Your task to perform on an android device: Search for pizza restaurants on Maps Image 0: 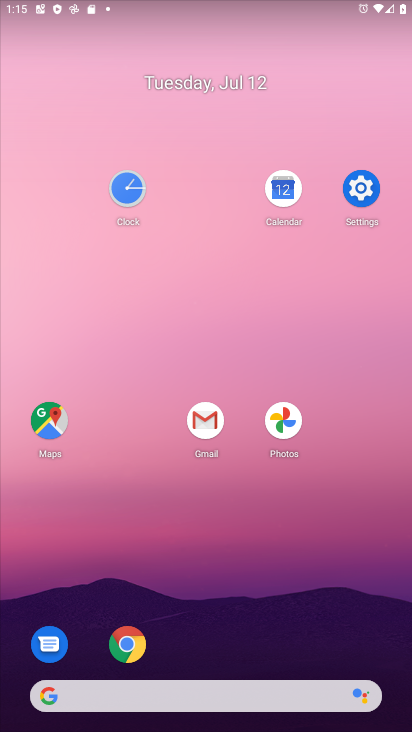
Step 0: click (57, 418)
Your task to perform on an android device: Search for pizza restaurants on Maps Image 1: 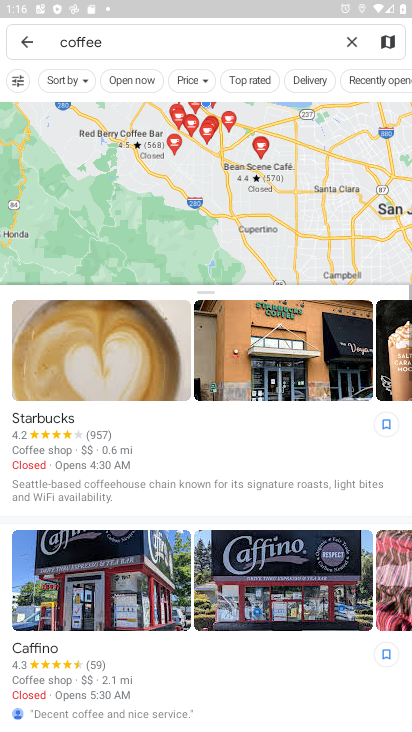
Step 1: click (352, 42)
Your task to perform on an android device: Search for pizza restaurants on Maps Image 2: 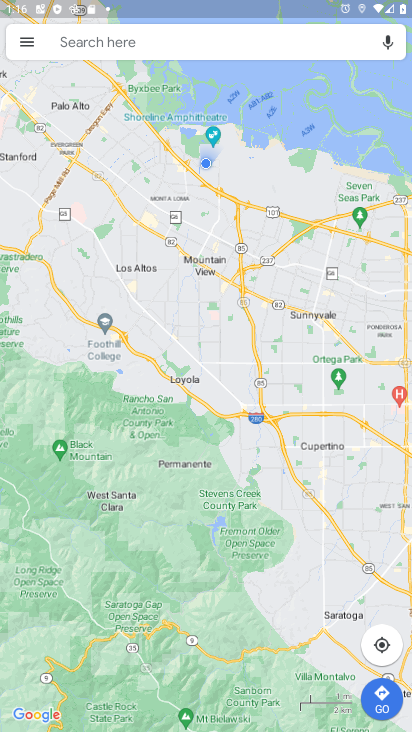
Step 2: click (184, 44)
Your task to perform on an android device: Search for pizza restaurants on Maps Image 3: 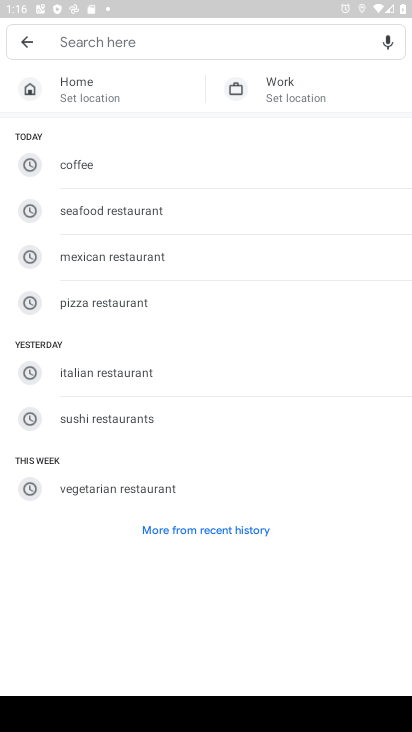
Step 3: click (121, 305)
Your task to perform on an android device: Search for pizza restaurants on Maps Image 4: 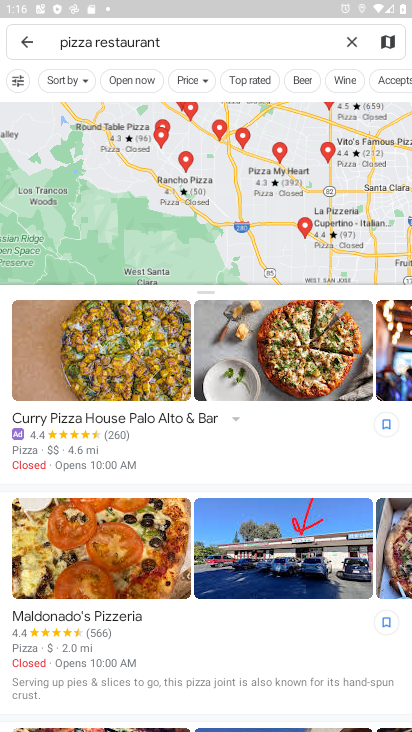
Step 4: task complete